Your task to perform on an android device: Go to sound settings Image 0: 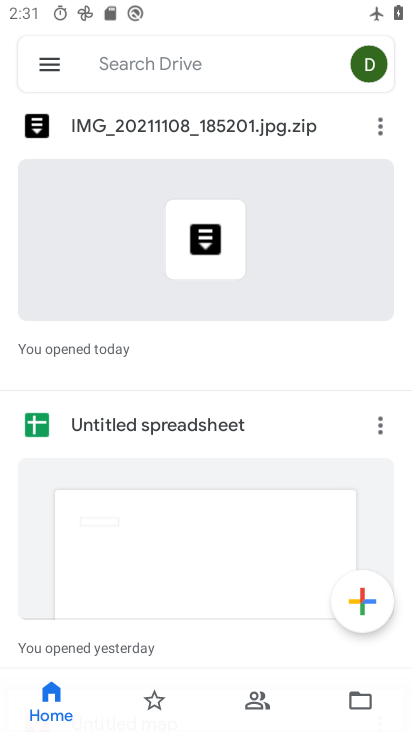
Step 0: press home button
Your task to perform on an android device: Go to sound settings Image 1: 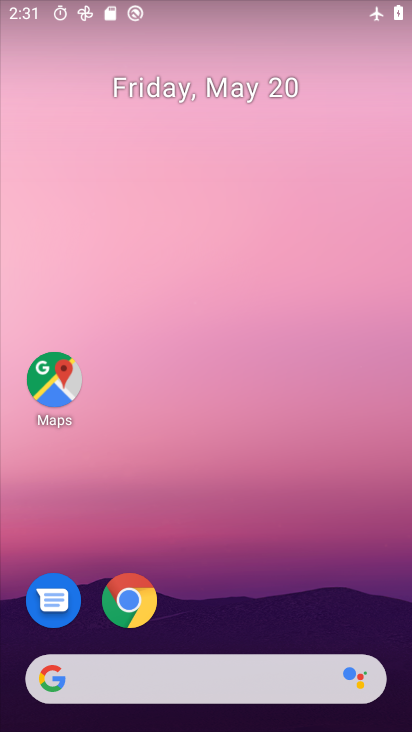
Step 1: drag from (322, 574) to (183, 89)
Your task to perform on an android device: Go to sound settings Image 2: 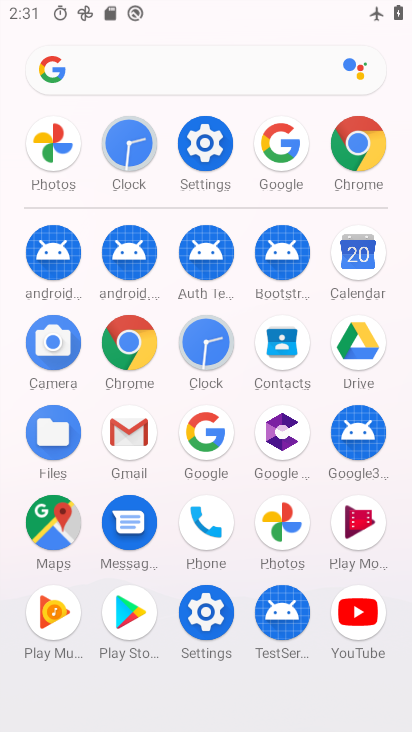
Step 2: click (193, 141)
Your task to perform on an android device: Go to sound settings Image 3: 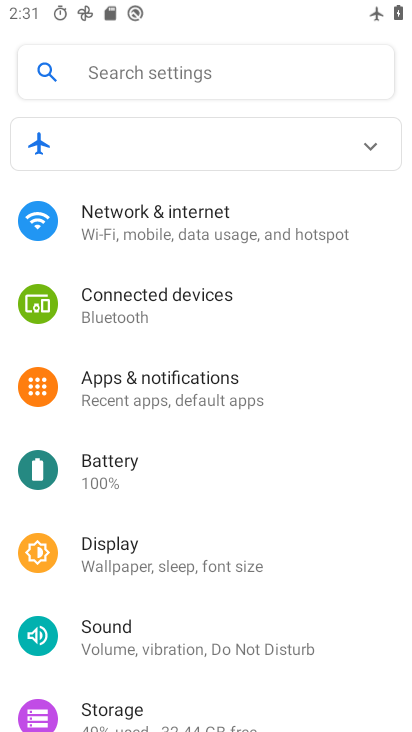
Step 3: click (198, 643)
Your task to perform on an android device: Go to sound settings Image 4: 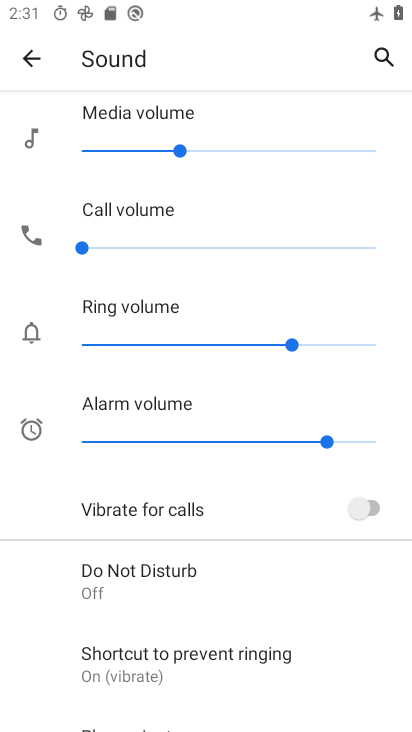
Step 4: task complete